Your task to perform on an android device: Go to settings Image 0: 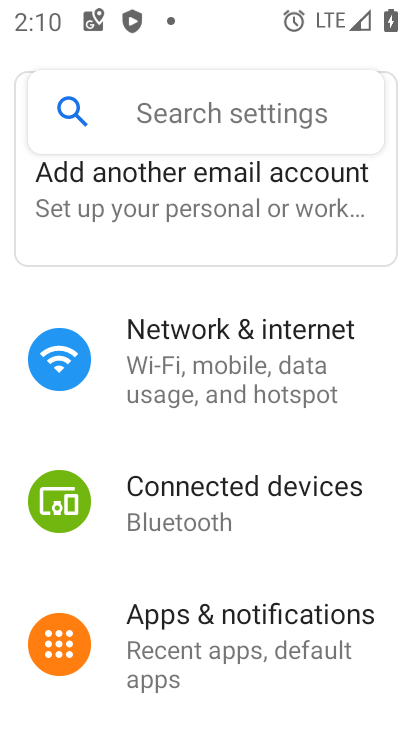
Step 0: press back button
Your task to perform on an android device: Go to settings Image 1: 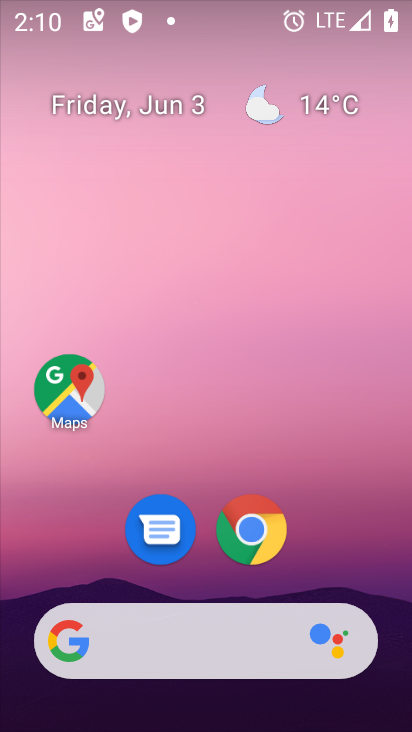
Step 1: drag from (357, 554) to (351, 122)
Your task to perform on an android device: Go to settings Image 2: 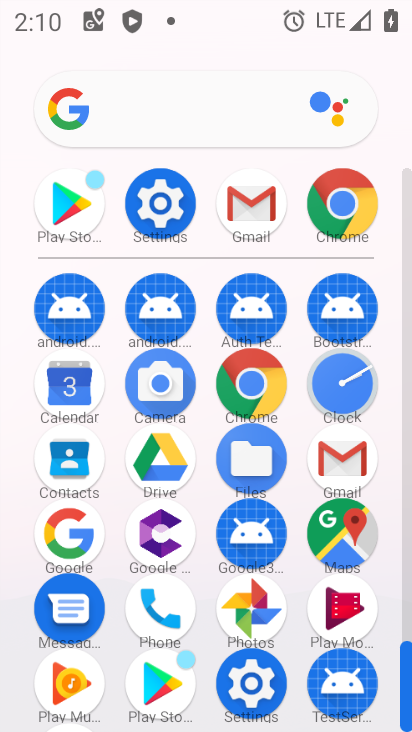
Step 2: click (169, 225)
Your task to perform on an android device: Go to settings Image 3: 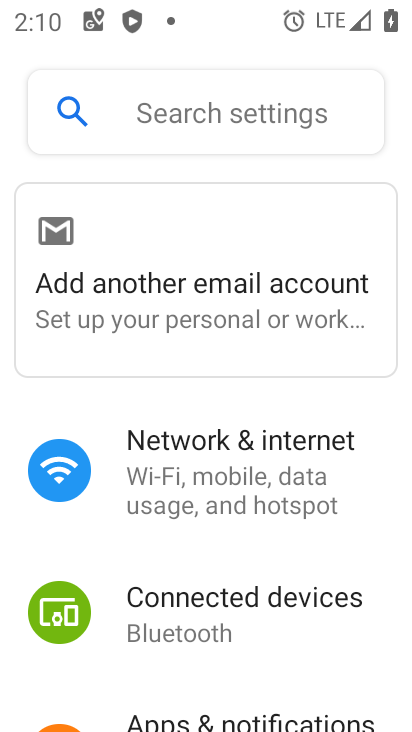
Step 3: task complete